Your task to perform on an android device: turn off improve location accuracy Image 0: 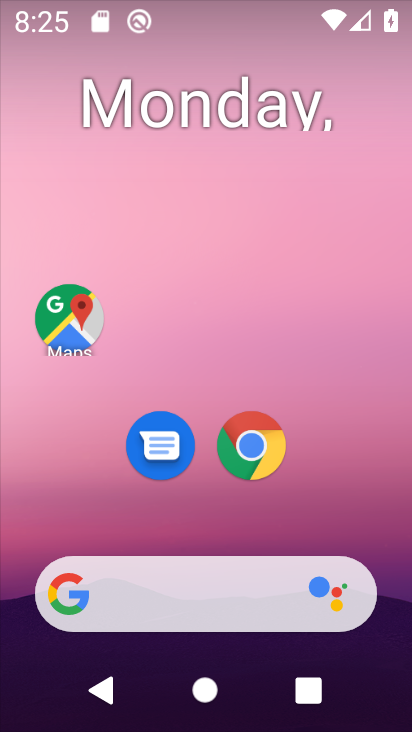
Step 0: drag from (205, 528) to (147, 3)
Your task to perform on an android device: turn off improve location accuracy Image 1: 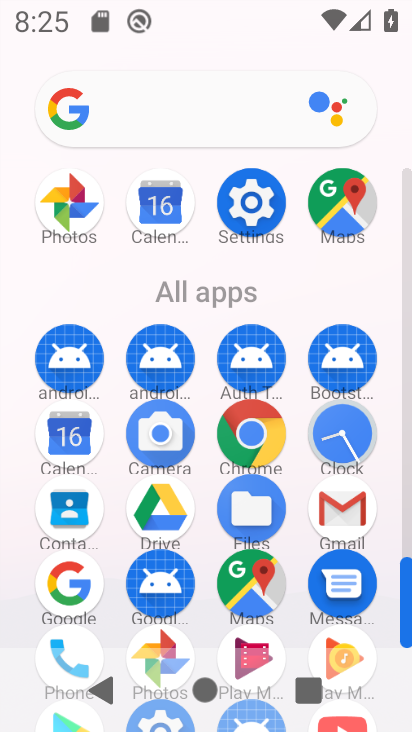
Step 1: click (252, 198)
Your task to perform on an android device: turn off improve location accuracy Image 2: 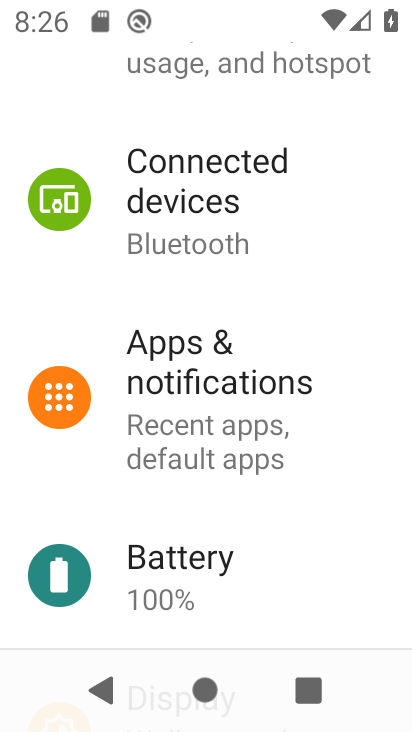
Step 2: drag from (220, 592) to (231, 57)
Your task to perform on an android device: turn off improve location accuracy Image 3: 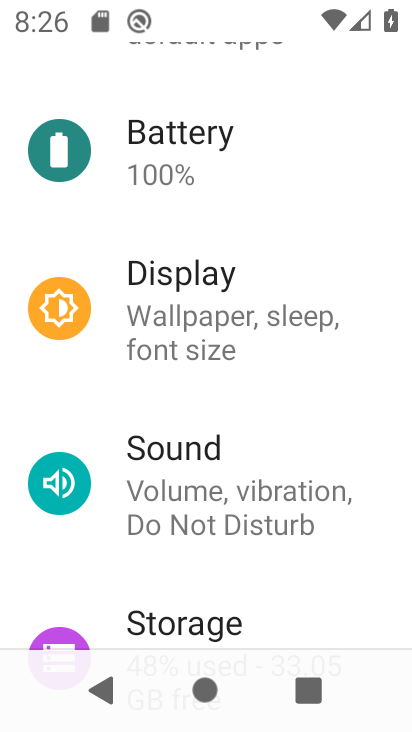
Step 3: drag from (243, 599) to (250, 53)
Your task to perform on an android device: turn off improve location accuracy Image 4: 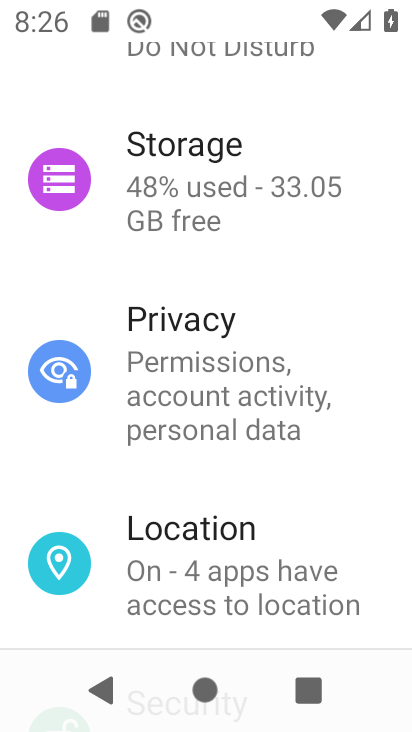
Step 4: click (281, 539)
Your task to perform on an android device: turn off improve location accuracy Image 5: 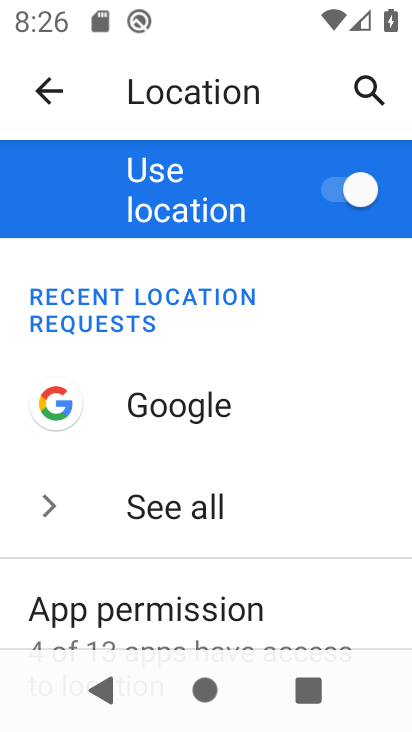
Step 5: drag from (273, 617) to (283, 201)
Your task to perform on an android device: turn off improve location accuracy Image 6: 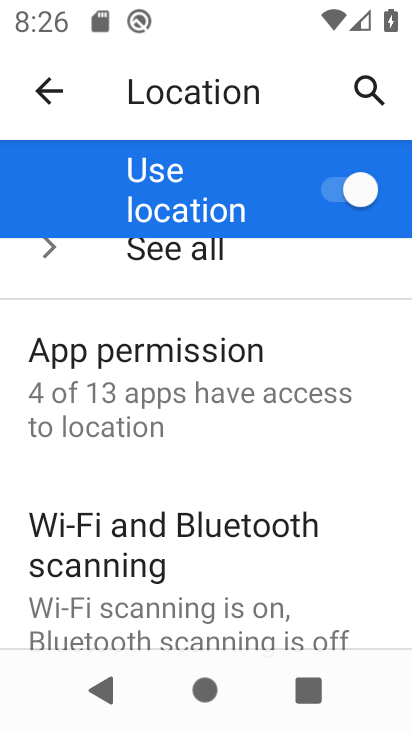
Step 6: drag from (229, 595) to (223, 201)
Your task to perform on an android device: turn off improve location accuracy Image 7: 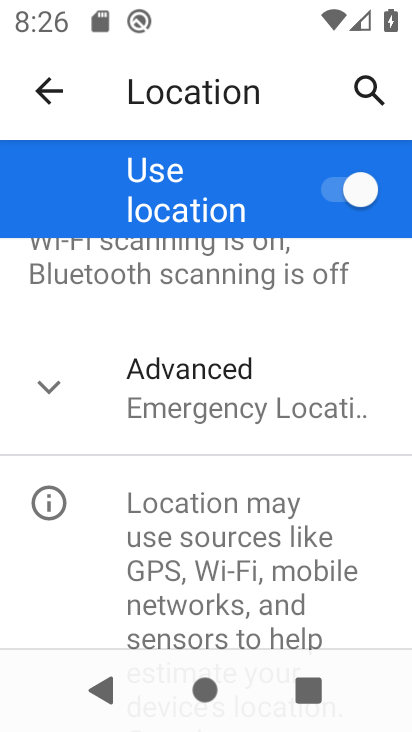
Step 7: click (53, 380)
Your task to perform on an android device: turn off improve location accuracy Image 8: 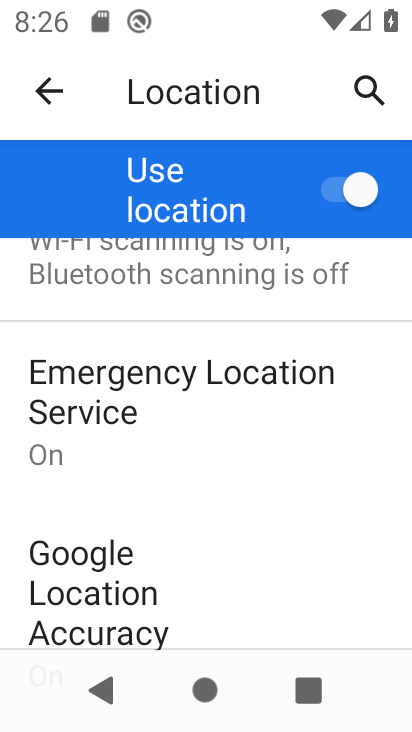
Step 8: click (178, 580)
Your task to perform on an android device: turn off improve location accuracy Image 9: 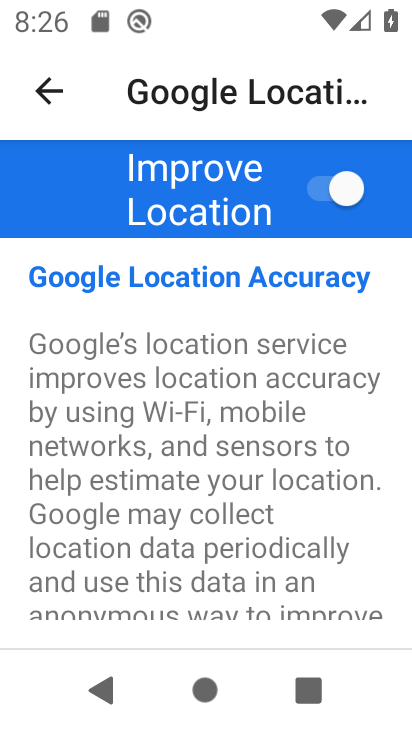
Step 9: drag from (162, 555) to (165, 359)
Your task to perform on an android device: turn off improve location accuracy Image 10: 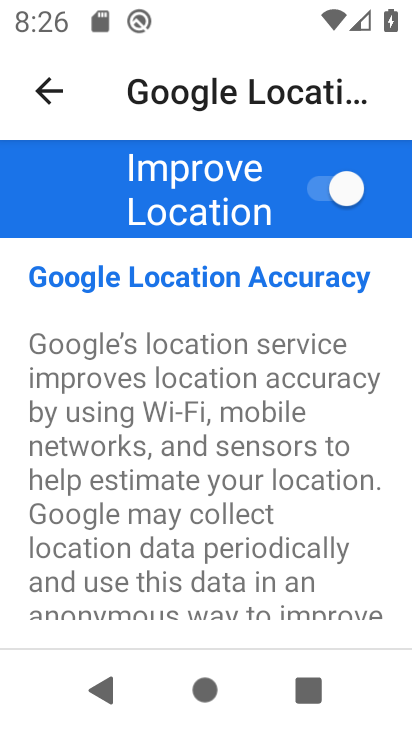
Step 10: click (326, 185)
Your task to perform on an android device: turn off improve location accuracy Image 11: 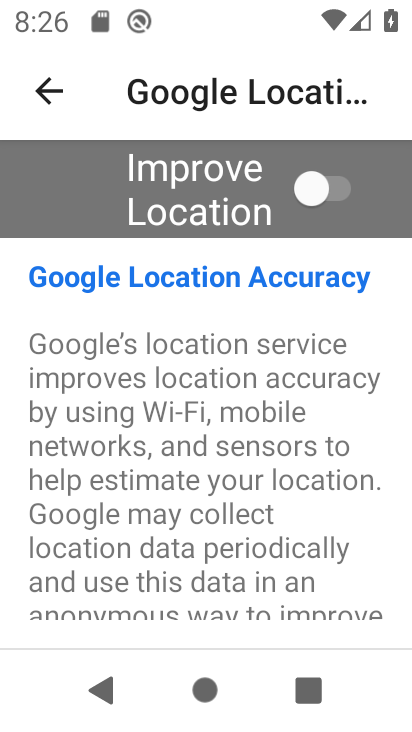
Step 11: task complete